Your task to perform on an android device: Is it going to rain tomorrow? Image 0: 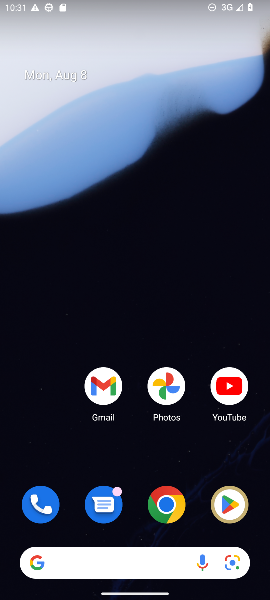
Step 0: click (13, 255)
Your task to perform on an android device: Is it going to rain tomorrow? Image 1: 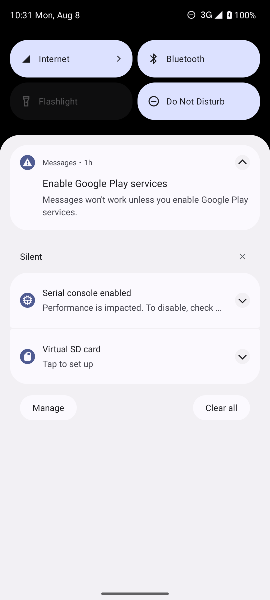
Step 1: press home button
Your task to perform on an android device: Is it going to rain tomorrow? Image 2: 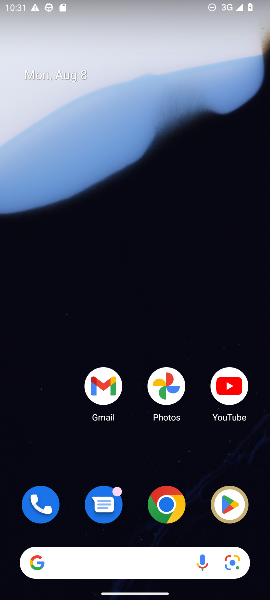
Step 2: click (42, 564)
Your task to perform on an android device: Is it going to rain tomorrow? Image 3: 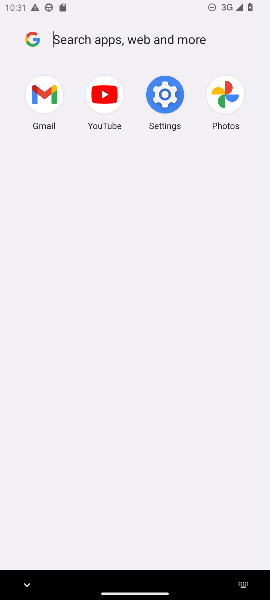
Step 3: type "google"
Your task to perform on an android device: Is it going to rain tomorrow? Image 4: 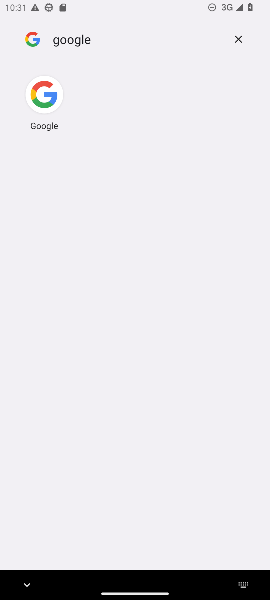
Step 4: click (18, 106)
Your task to perform on an android device: Is it going to rain tomorrow? Image 5: 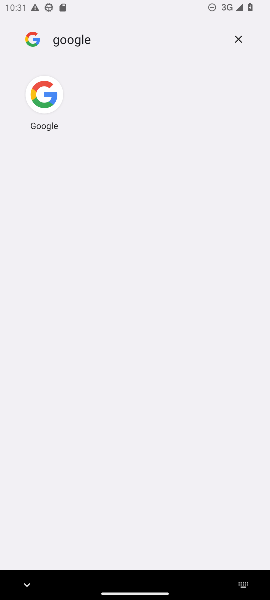
Step 5: click (53, 118)
Your task to perform on an android device: Is it going to rain tomorrow? Image 6: 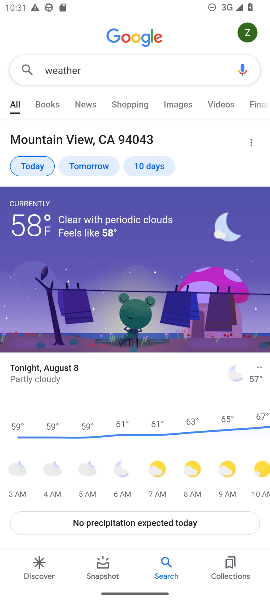
Step 6: click (97, 167)
Your task to perform on an android device: Is it going to rain tomorrow? Image 7: 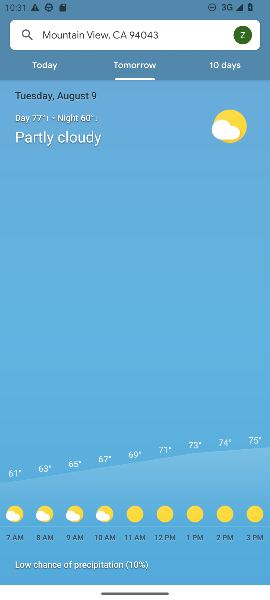
Step 7: task complete